Your task to perform on an android device: Clear all items from cart on walmart.com. Search for sony triple a on walmart.com, select the first entry, and add it to the cart. Image 0: 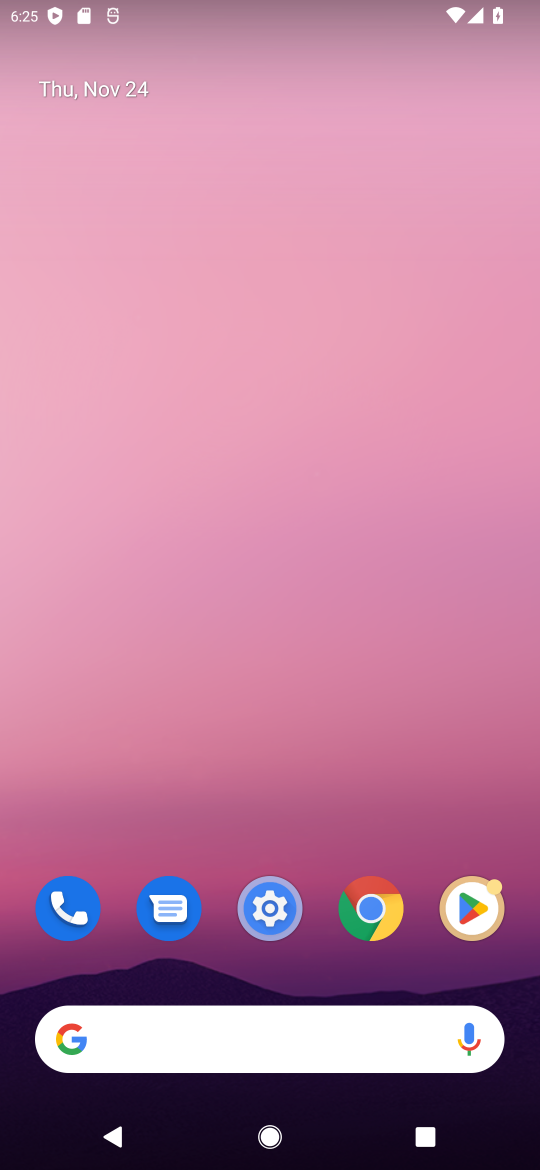
Step 0: click (159, 1024)
Your task to perform on an android device: Clear all items from cart on walmart.com. Search for sony triple a on walmart.com, select the first entry, and add it to the cart. Image 1: 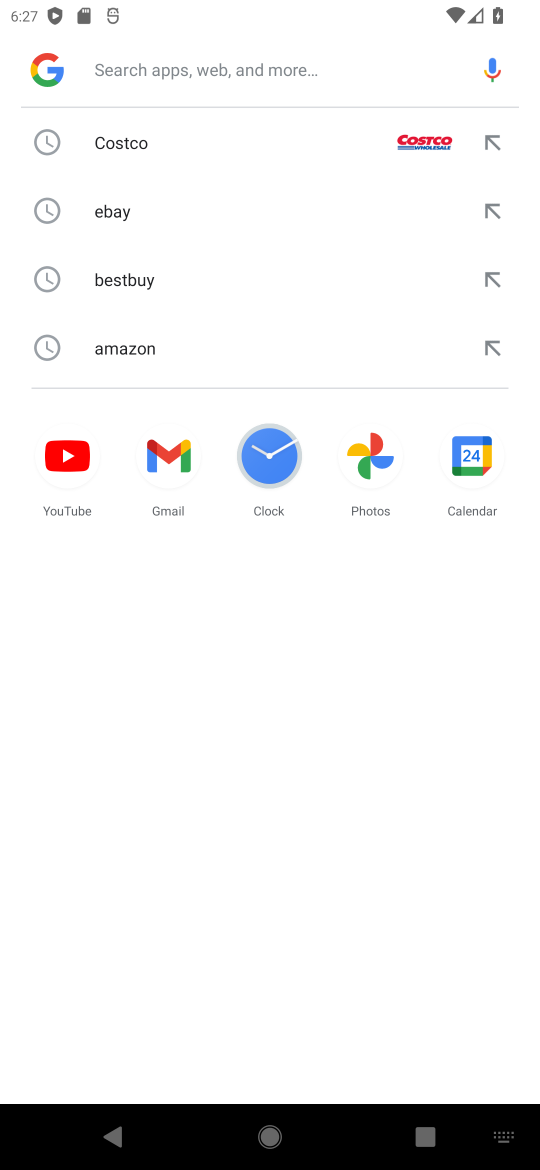
Step 1: task complete